Your task to perform on an android device: Play the last video I watched on Youtube Image 0: 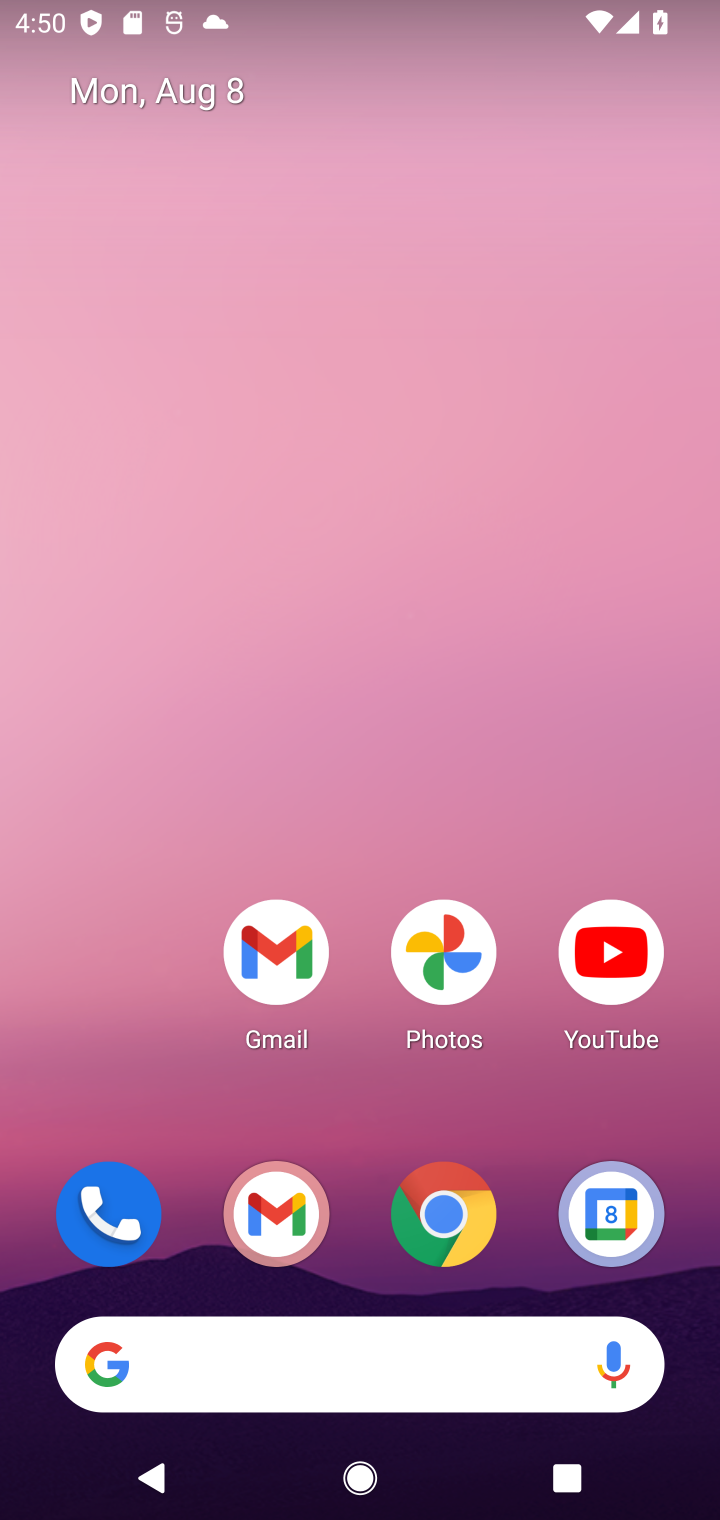
Step 0: drag from (372, 1294) to (333, 0)
Your task to perform on an android device: Play the last video I watched on Youtube Image 1: 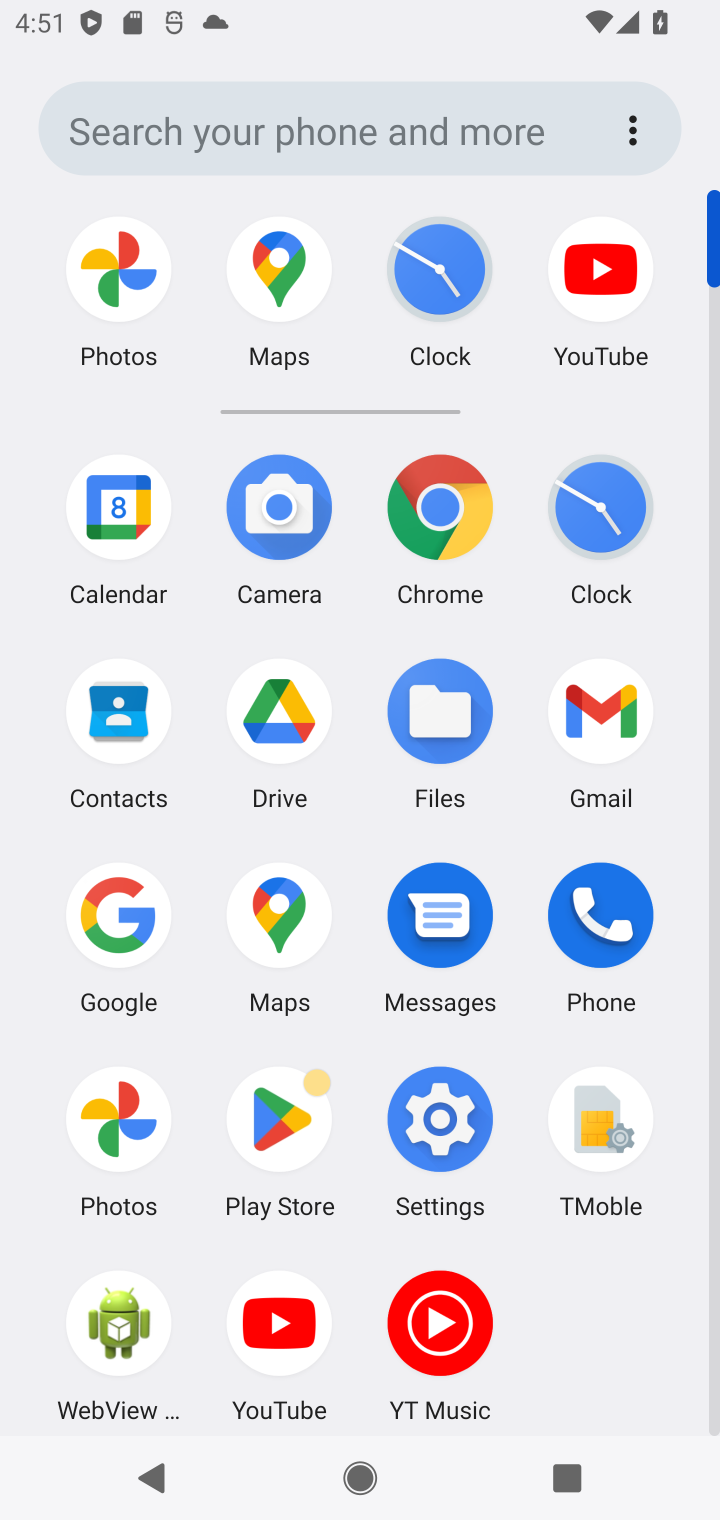
Step 1: click (599, 274)
Your task to perform on an android device: Play the last video I watched on Youtube Image 2: 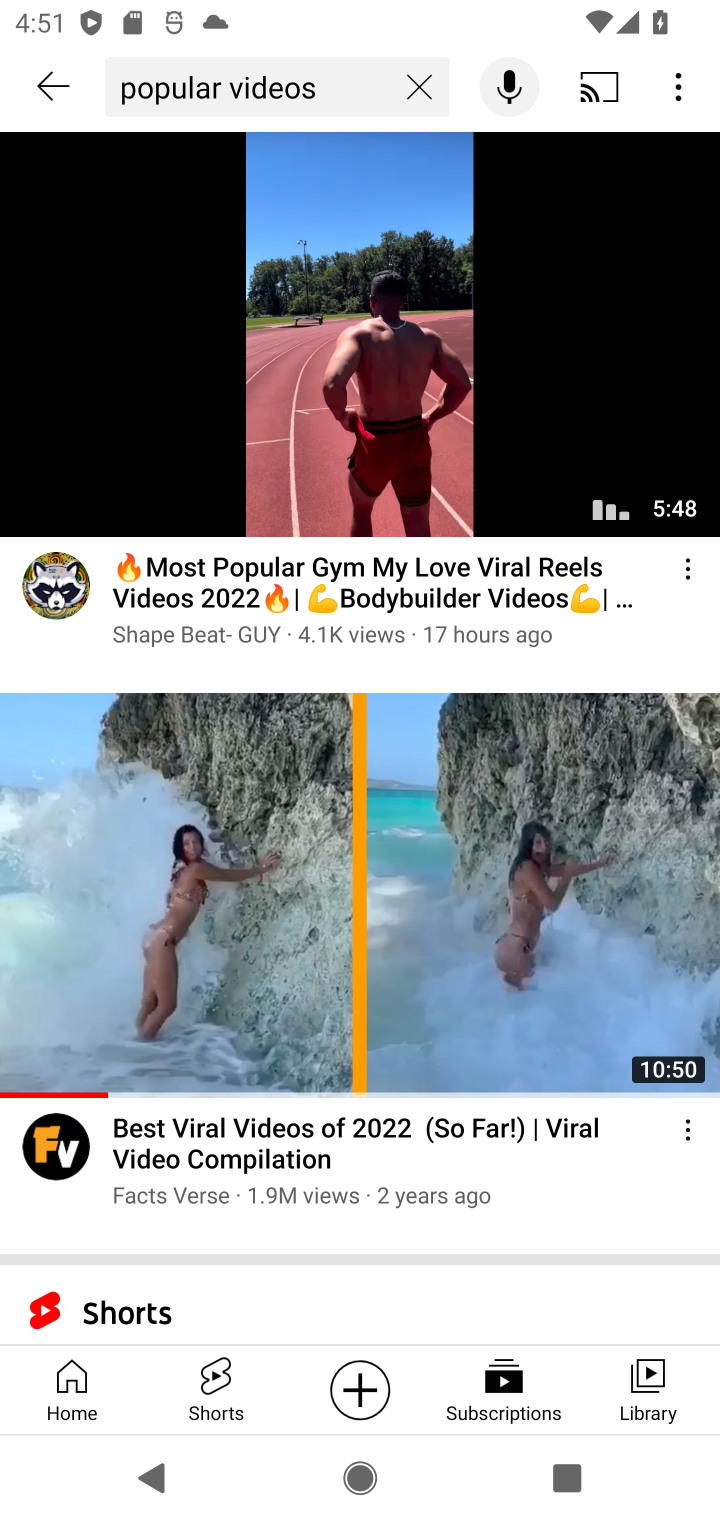
Step 2: click (639, 1385)
Your task to perform on an android device: Play the last video I watched on Youtube Image 3: 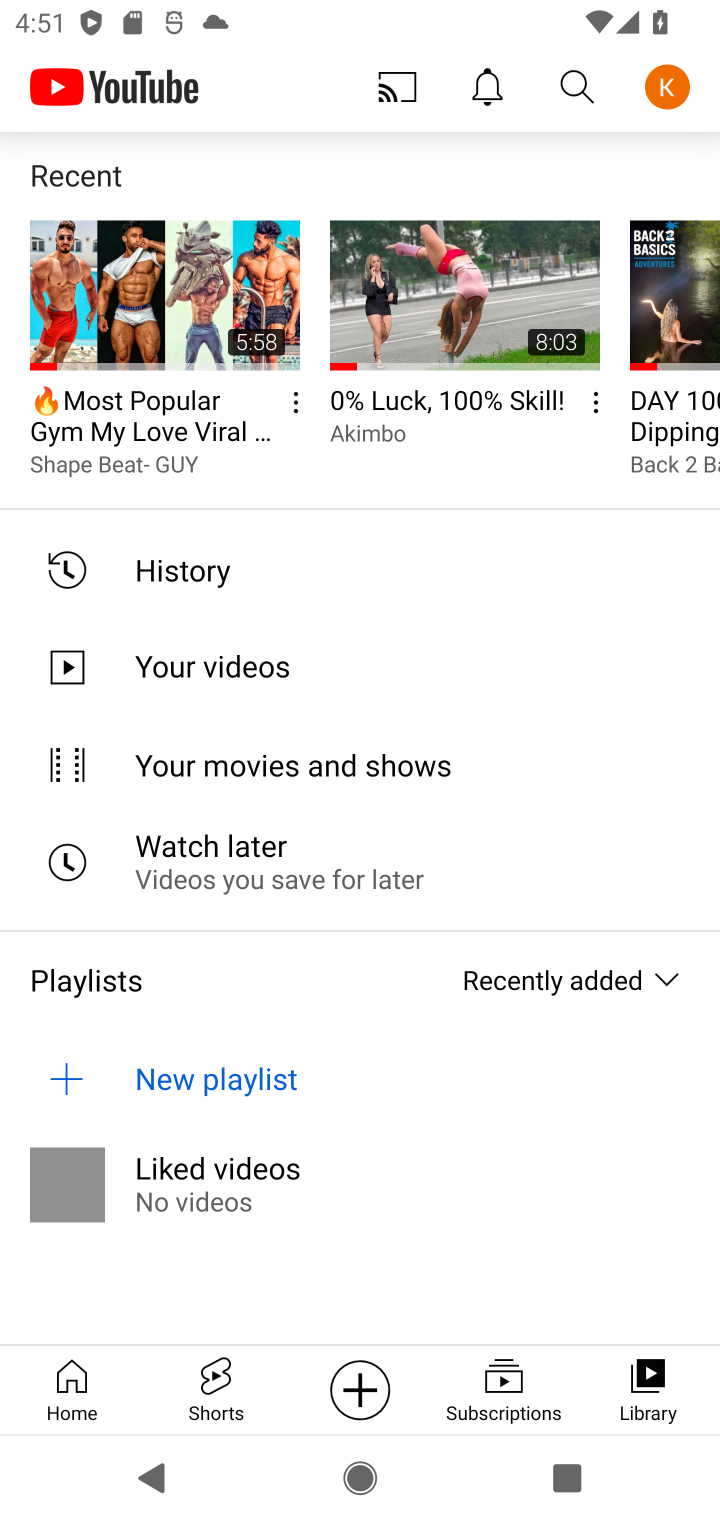
Step 3: click (208, 277)
Your task to perform on an android device: Play the last video I watched on Youtube Image 4: 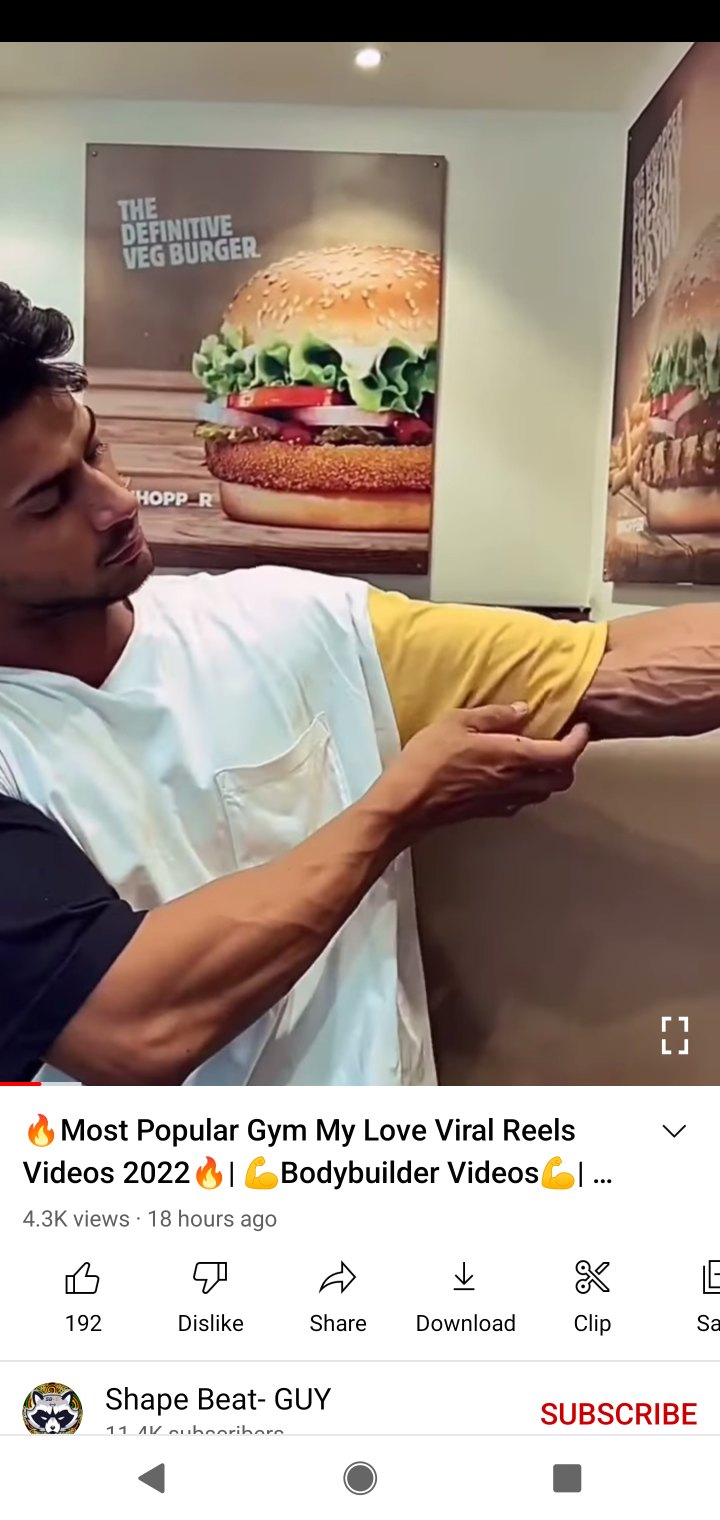
Step 4: task complete